Your task to perform on an android device: set the timer Image 0: 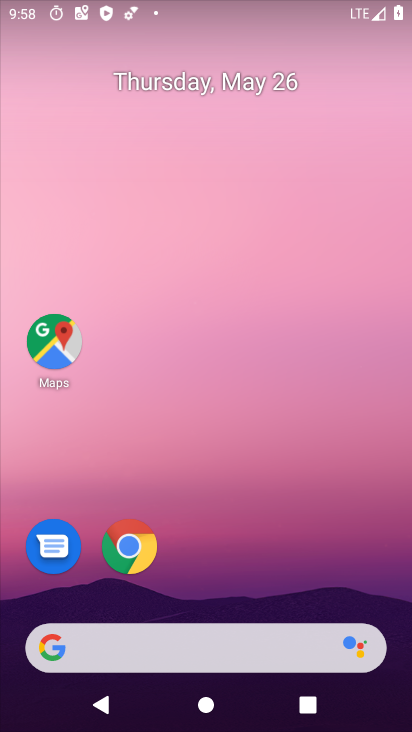
Step 0: drag from (320, 573) to (325, 204)
Your task to perform on an android device: set the timer Image 1: 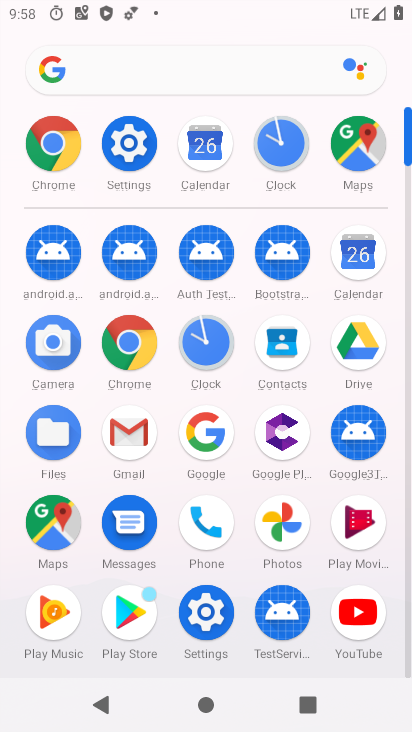
Step 1: click (217, 616)
Your task to perform on an android device: set the timer Image 2: 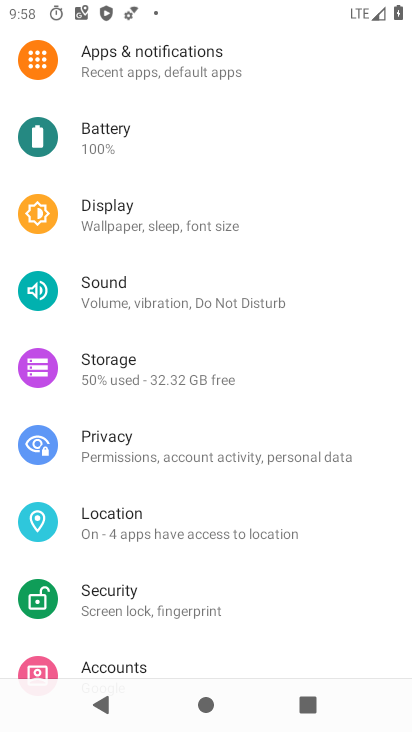
Step 2: drag from (230, 367) to (252, 698)
Your task to perform on an android device: set the timer Image 3: 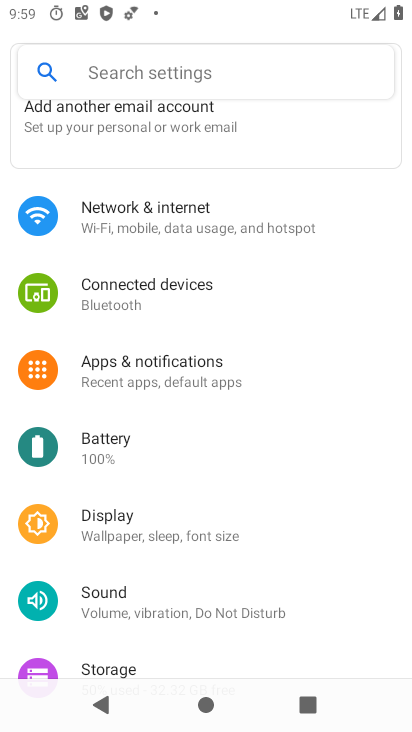
Step 3: press home button
Your task to perform on an android device: set the timer Image 4: 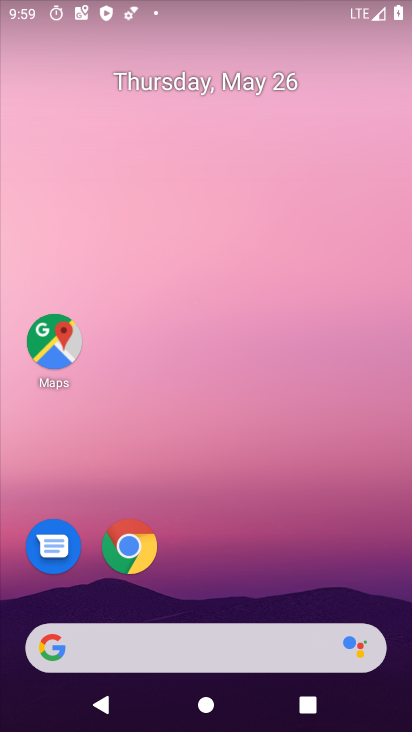
Step 4: drag from (330, 534) to (325, 151)
Your task to perform on an android device: set the timer Image 5: 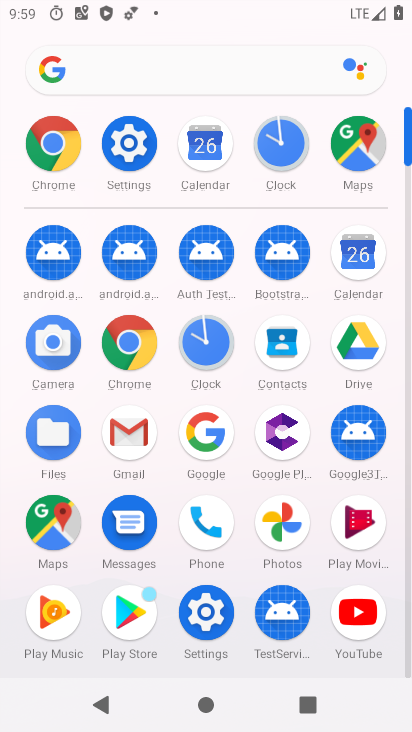
Step 5: click (220, 355)
Your task to perform on an android device: set the timer Image 6: 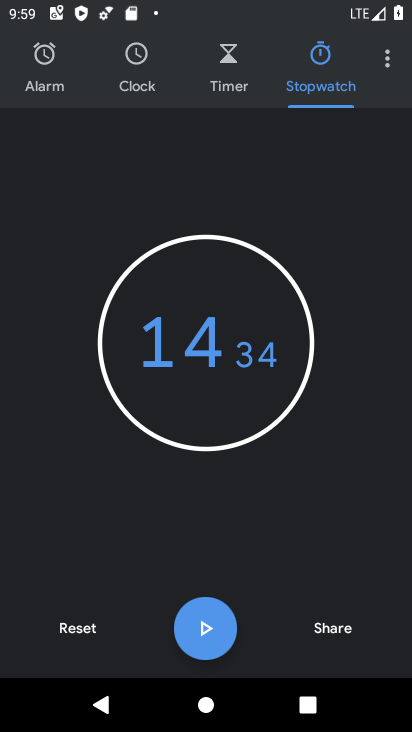
Step 6: click (239, 87)
Your task to perform on an android device: set the timer Image 7: 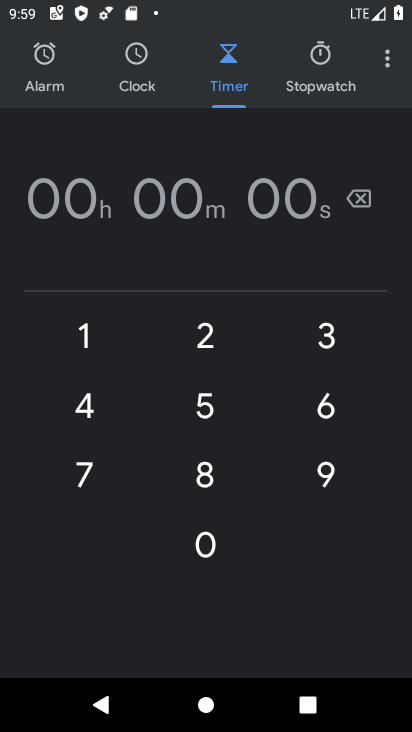
Step 7: click (100, 328)
Your task to perform on an android device: set the timer Image 8: 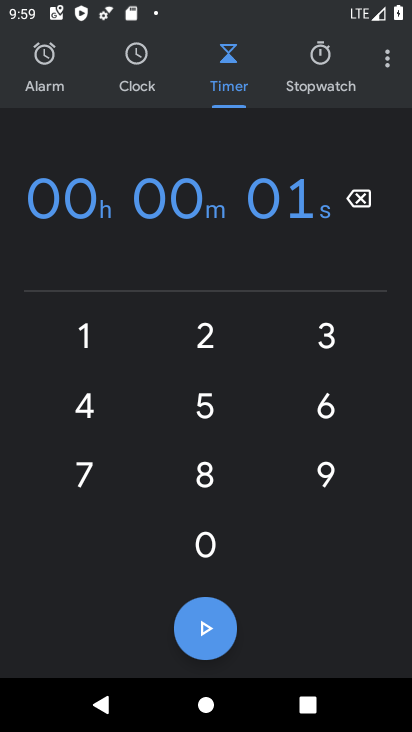
Step 8: click (185, 395)
Your task to perform on an android device: set the timer Image 9: 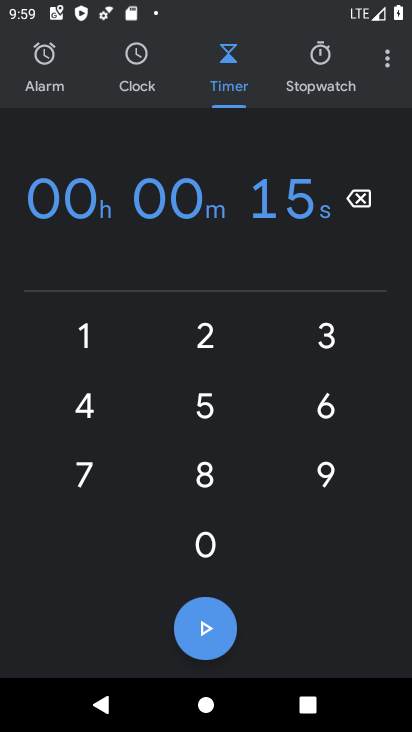
Step 9: click (200, 419)
Your task to perform on an android device: set the timer Image 10: 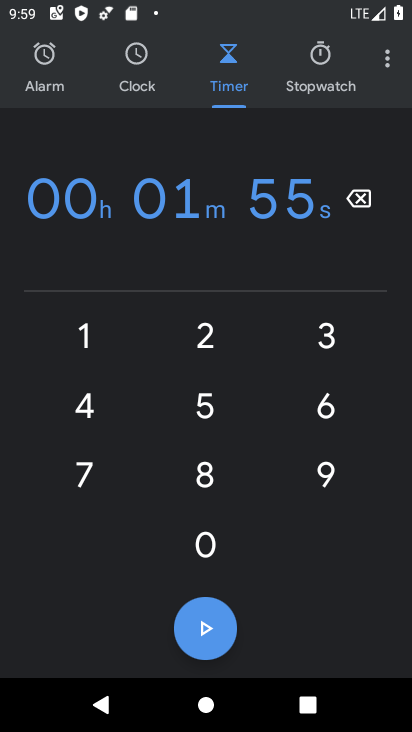
Step 10: click (224, 638)
Your task to perform on an android device: set the timer Image 11: 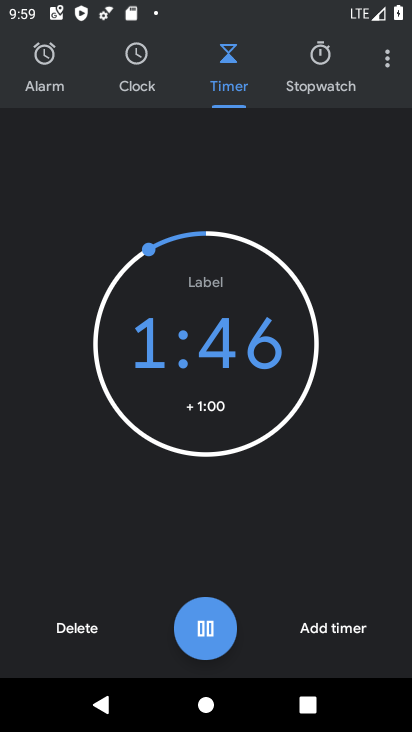
Step 11: click (209, 631)
Your task to perform on an android device: set the timer Image 12: 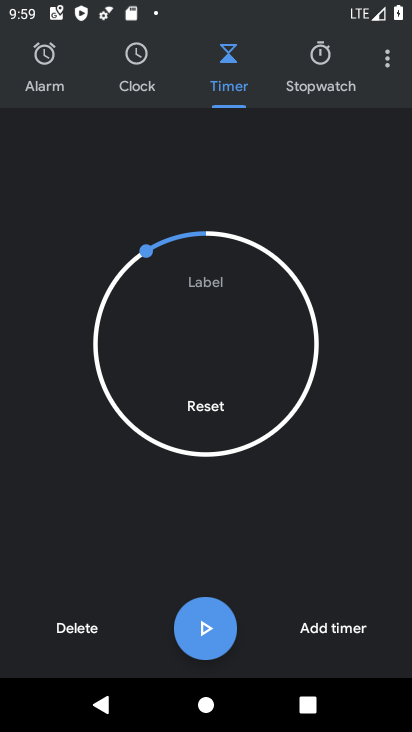
Step 12: task complete